Your task to perform on an android device: Open the web browser Image 0: 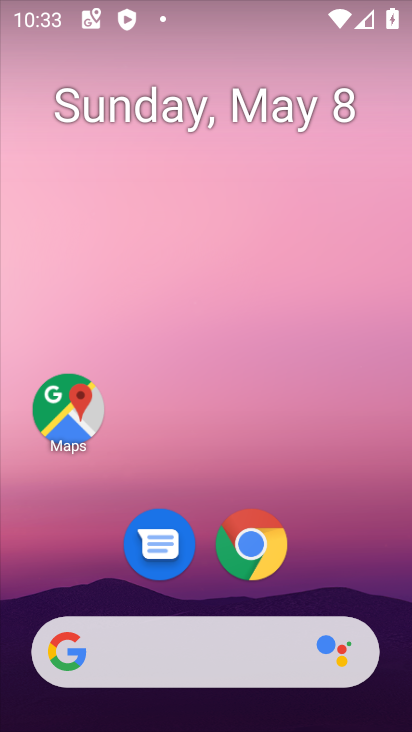
Step 0: click (261, 530)
Your task to perform on an android device: Open the web browser Image 1: 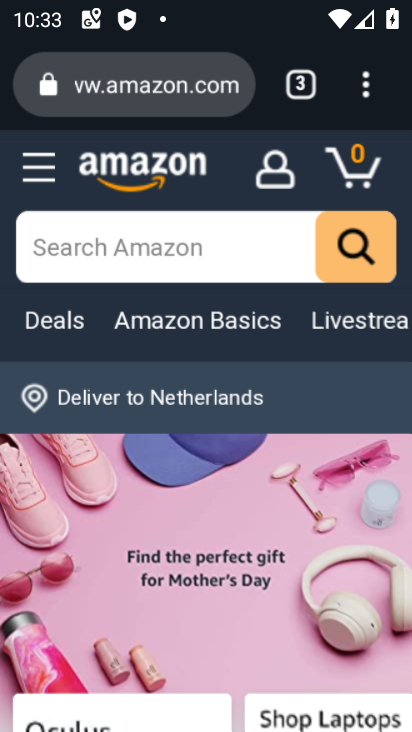
Step 1: task complete